Your task to perform on an android device: change timer sound Image 0: 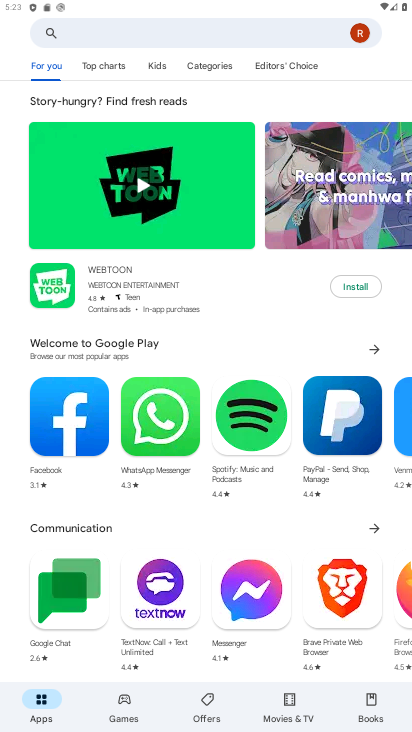
Step 0: press home button
Your task to perform on an android device: change timer sound Image 1: 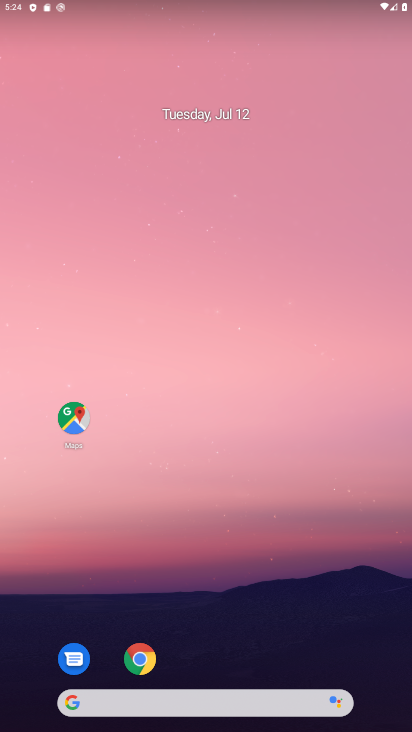
Step 1: drag from (242, 609) to (264, 7)
Your task to perform on an android device: change timer sound Image 2: 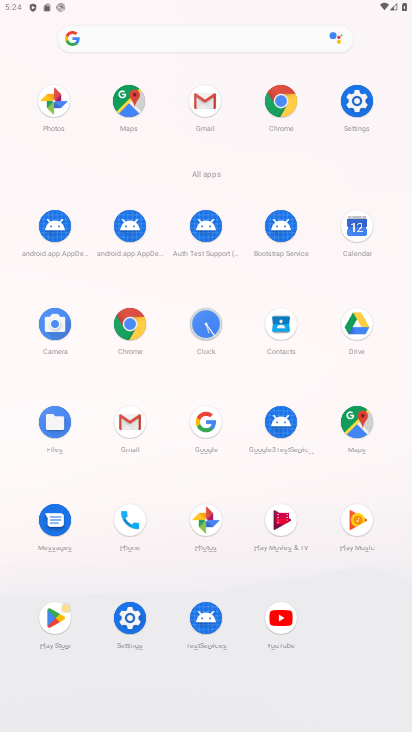
Step 2: click (213, 355)
Your task to perform on an android device: change timer sound Image 3: 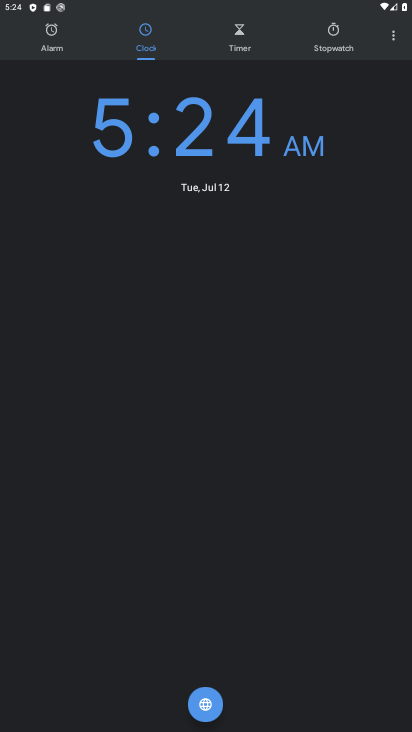
Step 3: click (394, 36)
Your task to perform on an android device: change timer sound Image 4: 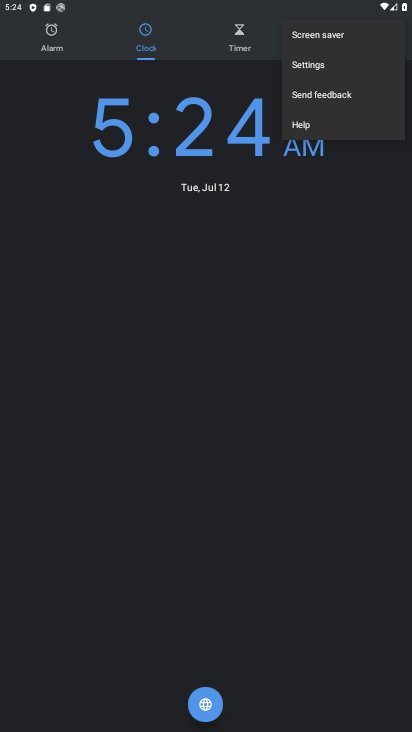
Step 4: click (317, 71)
Your task to perform on an android device: change timer sound Image 5: 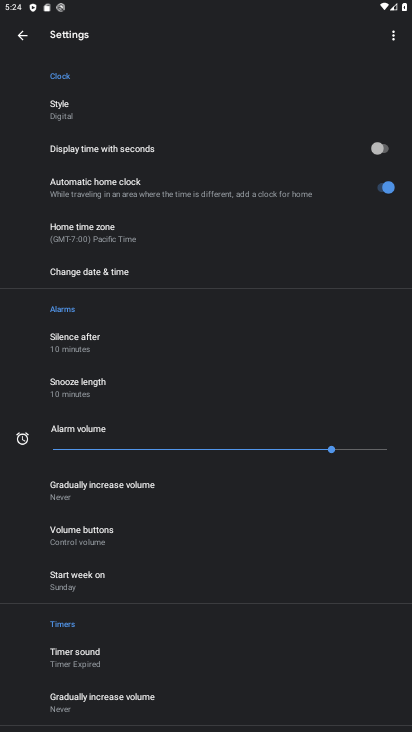
Step 5: drag from (140, 565) to (139, 512)
Your task to perform on an android device: change timer sound Image 6: 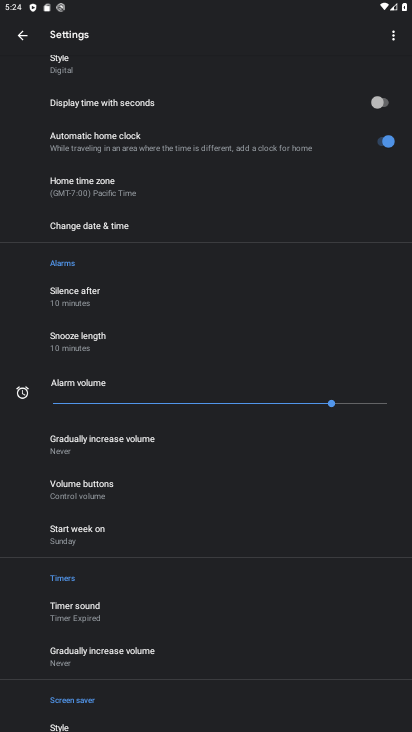
Step 6: click (95, 610)
Your task to perform on an android device: change timer sound Image 7: 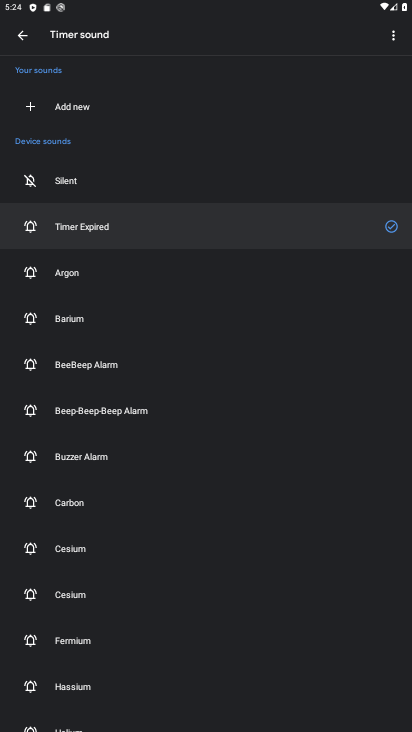
Step 7: click (67, 292)
Your task to perform on an android device: change timer sound Image 8: 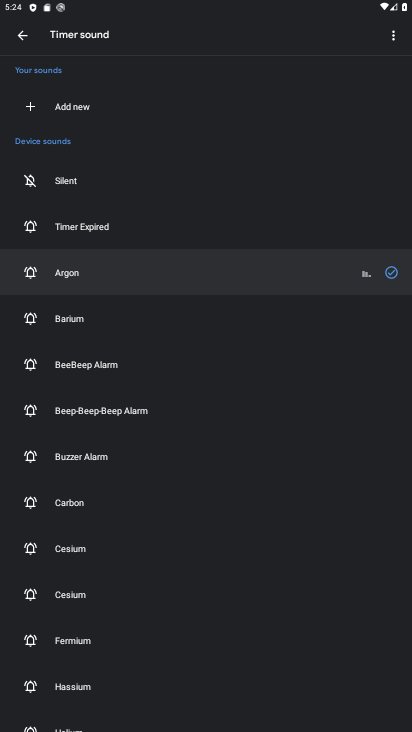
Step 8: task complete